Your task to perform on an android device: turn off location history Image 0: 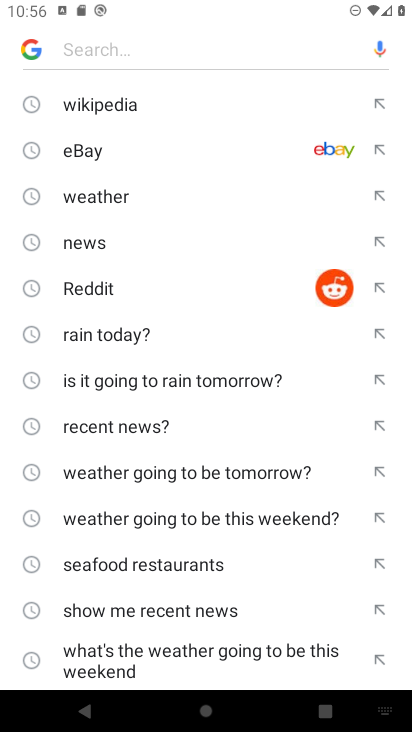
Step 0: press home button
Your task to perform on an android device: turn off location history Image 1: 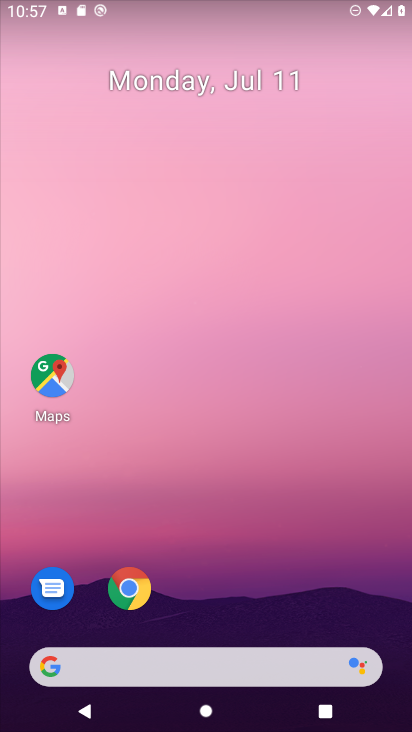
Step 1: drag from (398, 615) to (194, 53)
Your task to perform on an android device: turn off location history Image 2: 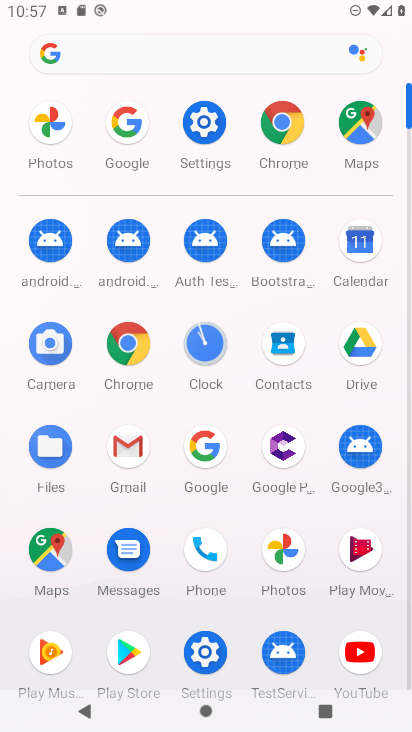
Step 2: click (218, 125)
Your task to perform on an android device: turn off location history Image 3: 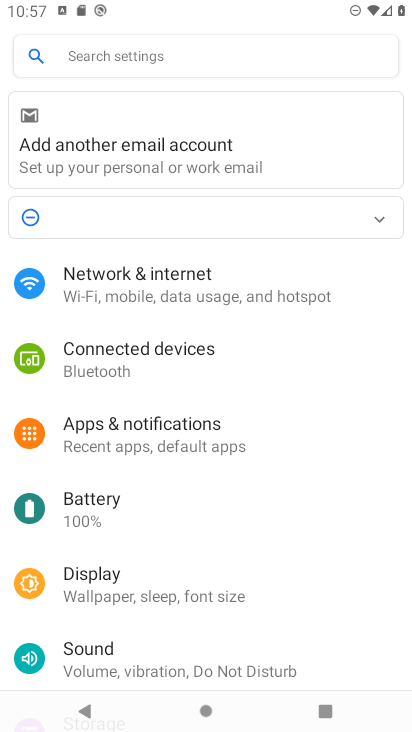
Step 3: drag from (124, 660) to (162, 202)
Your task to perform on an android device: turn off location history Image 4: 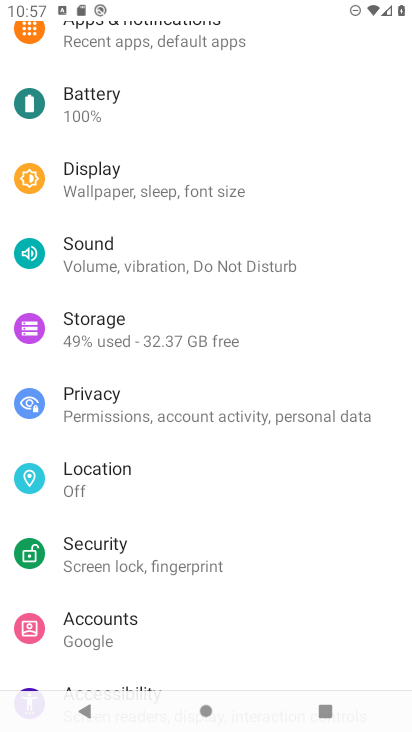
Step 4: click (88, 477)
Your task to perform on an android device: turn off location history Image 5: 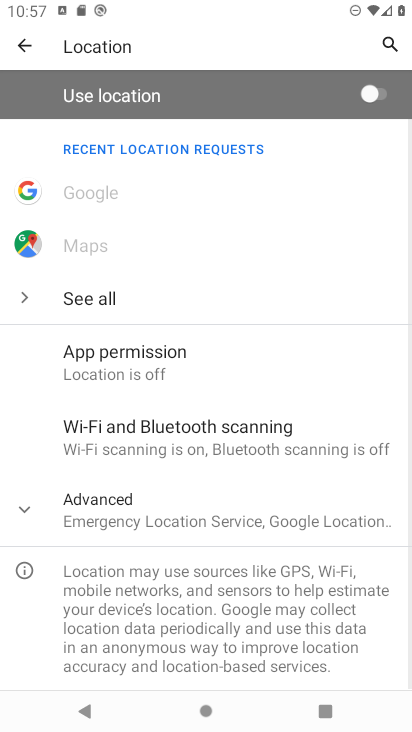
Step 5: click (157, 533)
Your task to perform on an android device: turn off location history Image 6: 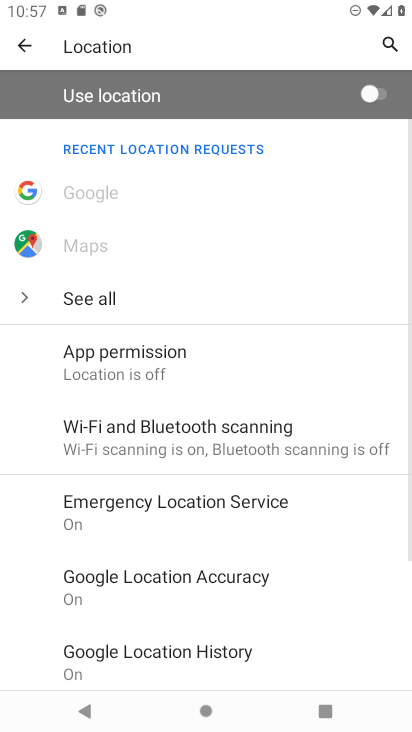
Step 6: click (215, 657)
Your task to perform on an android device: turn off location history Image 7: 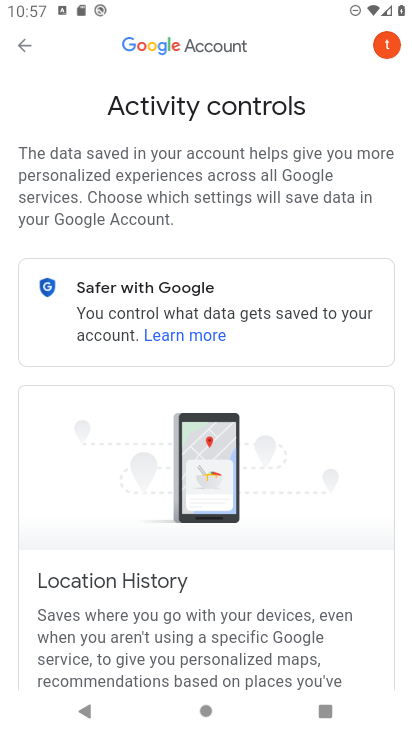
Step 7: task complete